Your task to perform on an android device: turn on priority inbox in the gmail app Image 0: 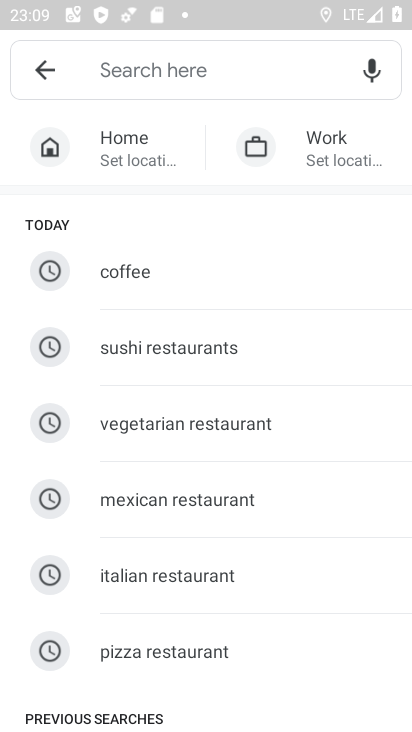
Step 0: press home button
Your task to perform on an android device: turn on priority inbox in the gmail app Image 1: 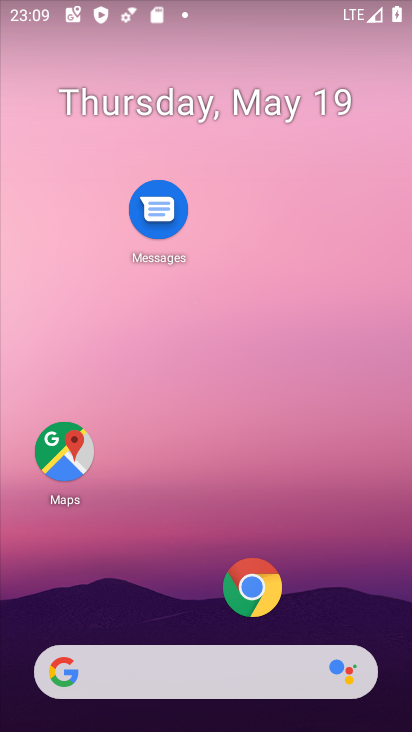
Step 1: drag from (101, 582) to (212, 128)
Your task to perform on an android device: turn on priority inbox in the gmail app Image 2: 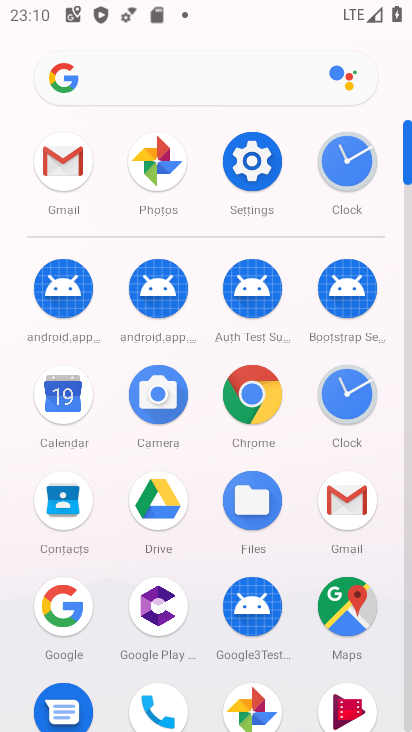
Step 2: click (70, 169)
Your task to perform on an android device: turn on priority inbox in the gmail app Image 3: 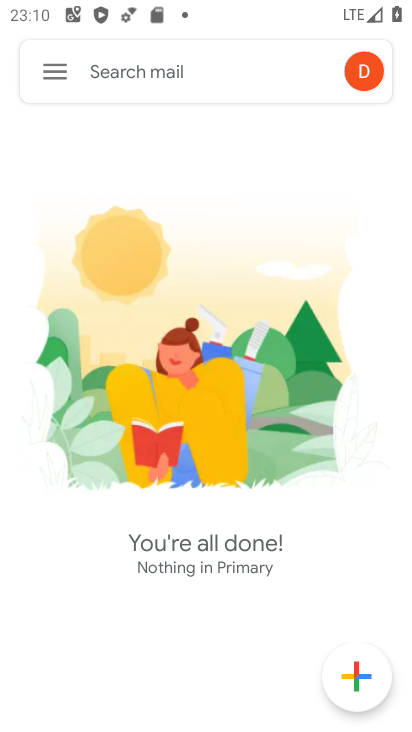
Step 3: click (44, 77)
Your task to perform on an android device: turn on priority inbox in the gmail app Image 4: 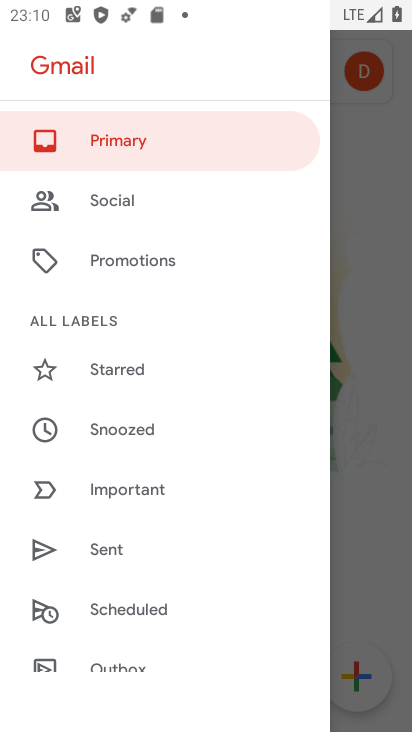
Step 4: drag from (240, 490) to (213, 137)
Your task to perform on an android device: turn on priority inbox in the gmail app Image 5: 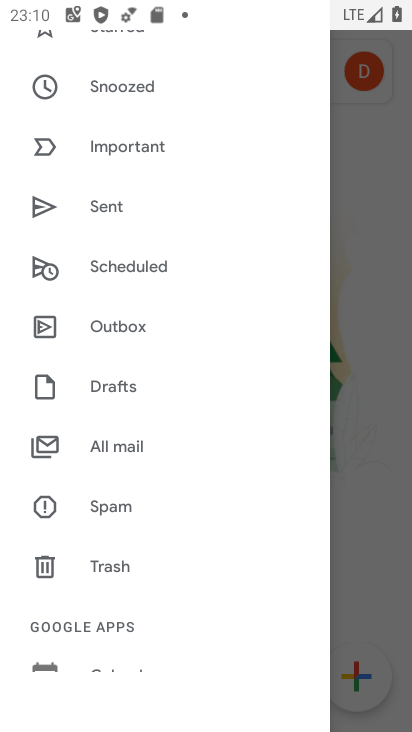
Step 5: drag from (213, 137) to (213, 697)
Your task to perform on an android device: turn on priority inbox in the gmail app Image 6: 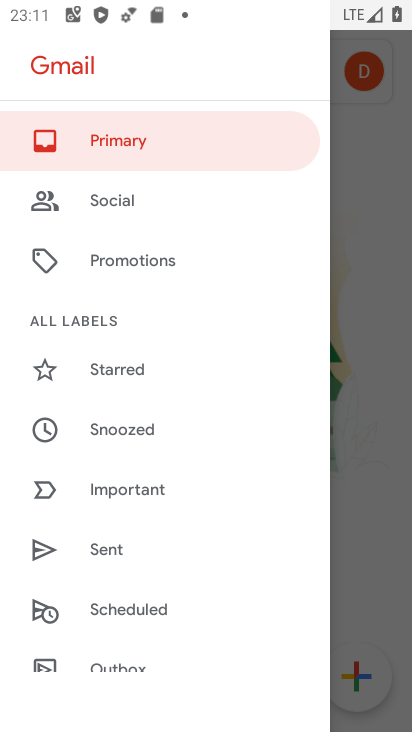
Step 6: drag from (213, 697) to (184, 187)
Your task to perform on an android device: turn on priority inbox in the gmail app Image 7: 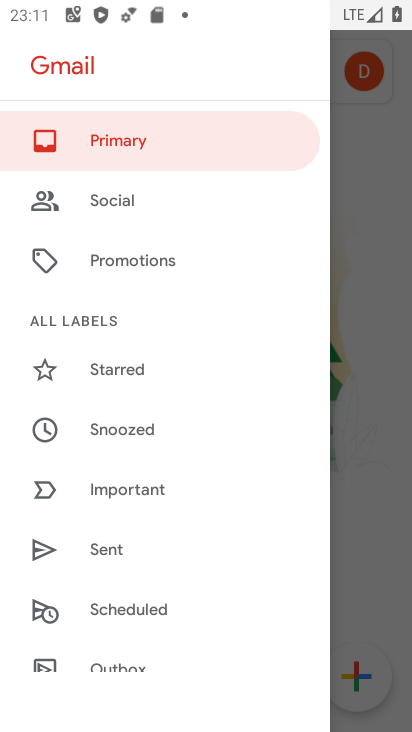
Step 7: drag from (127, 633) to (216, 31)
Your task to perform on an android device: turn on priority inbox in the gmail app Image 8: 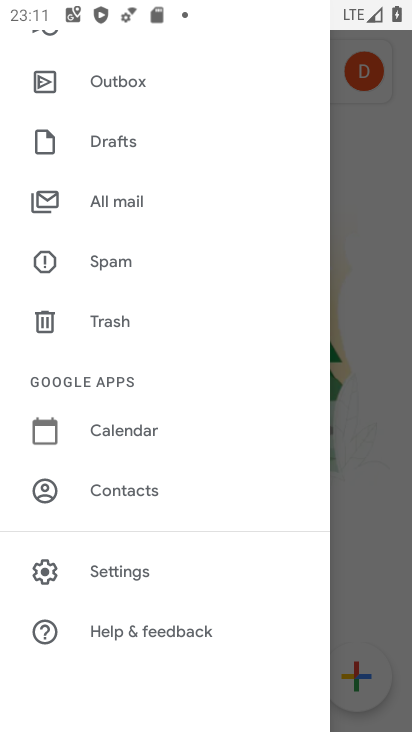
Step 8: click (124, 557)
Your task to perform on an android device: turn on priority inbox in the gmail app Image 9: 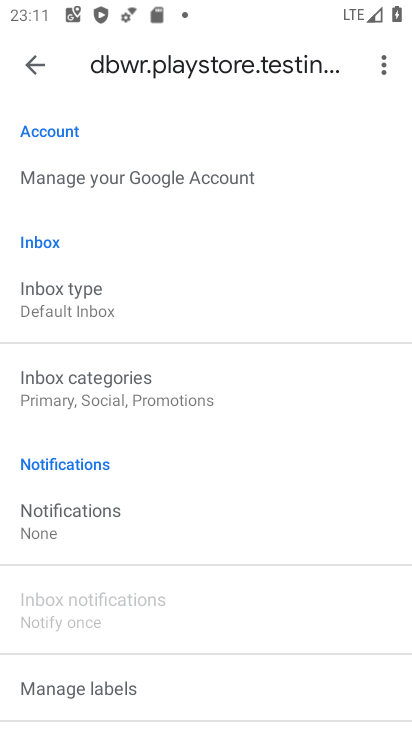
Step 9: click (137, 311)
Your task to perform on an android device: turn on priority inbox in the gmail app Image 10: 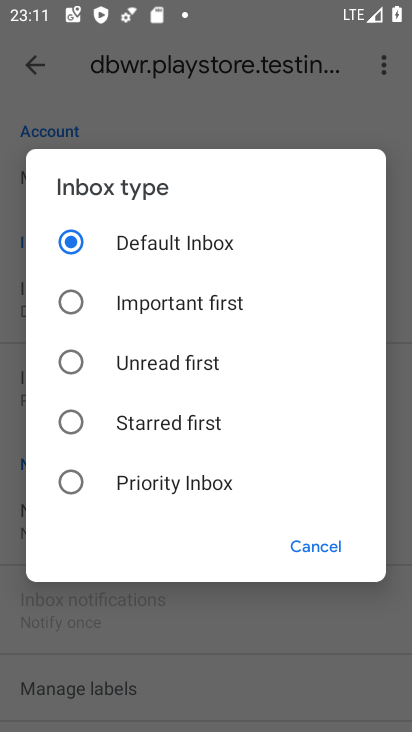
Step 10: click (100, 485)
Your task to perform on an android device: turn on priority inbox in the gmail app Image 11: 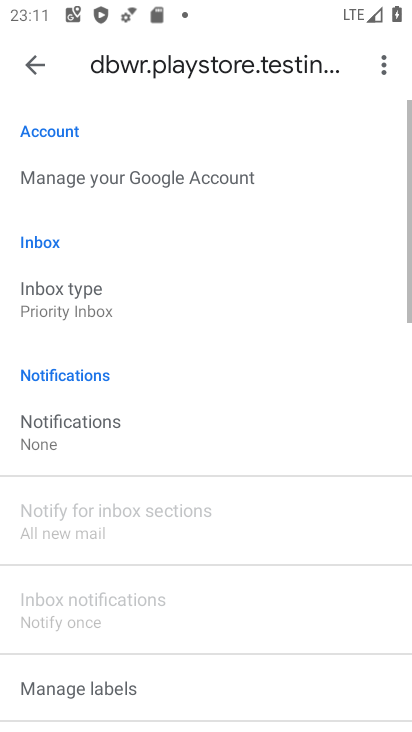
Step 11: task complete